Your task to perform on an android device: Go to settings Image 0: 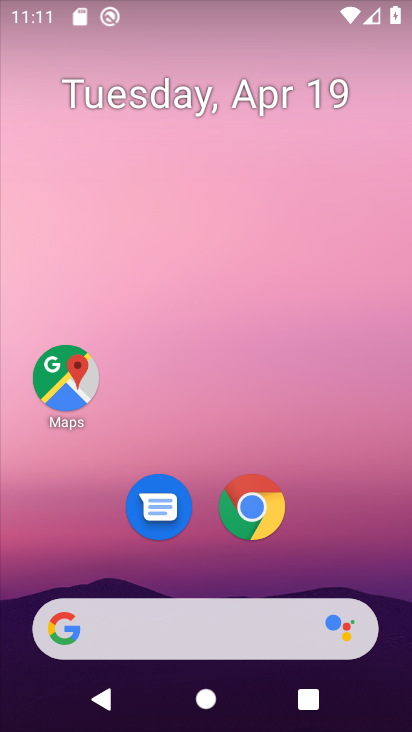
Step 0: drag from (381, 441) to (356, 117)
Your task to perform on an android device: Go to settings Image 1: 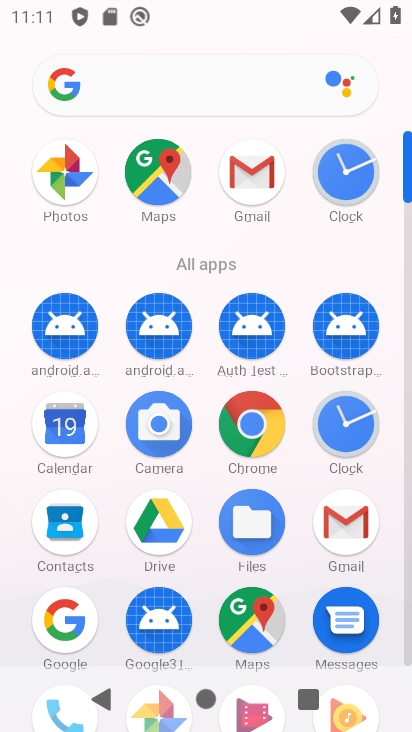
Step 1: click (287, 289)
Your task to perform on an android device: Go to settings Image 2: 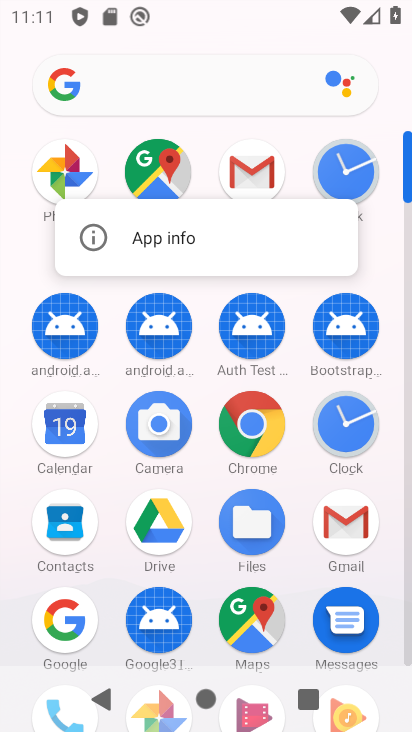
Step 2: drag from (380, 474) to (354, 253)
Your task to perform on an android device: Go to settings Image 3: 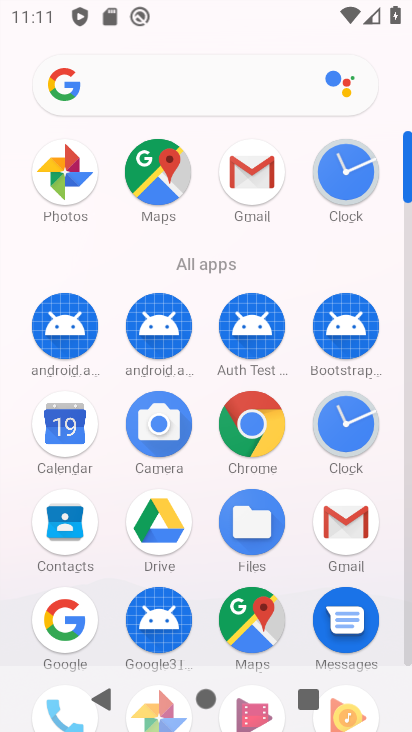
Step 3: drag from (386, 567) to (371, 253)
Your task to perform on an android device: Go to settings Image 4: 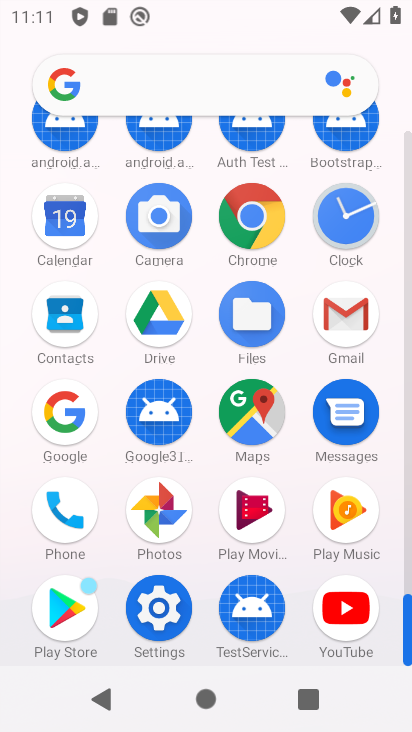
Step 4: click (178, 594)
Your task to perform on an android device: Go to settings Image 5: 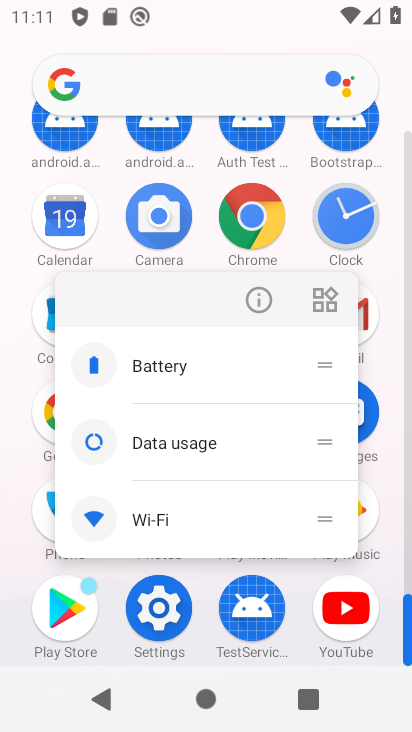
Step 5: click (178, 594)
Your task to perform on an android device: Go to settings Image 6: 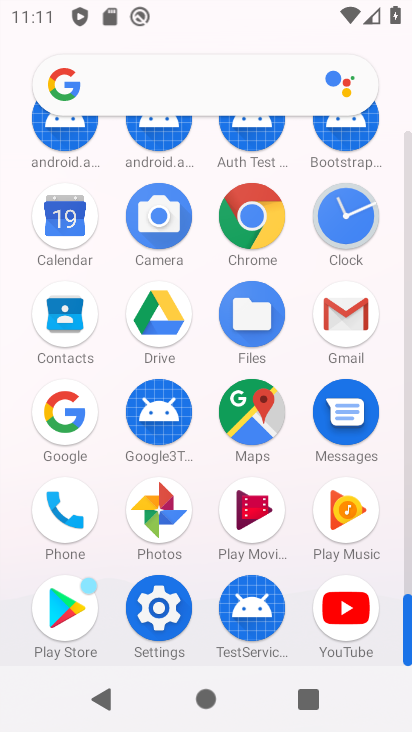
Step 6: click (173, 602)
Your task to perform on an android device: Go to settings Image 7: 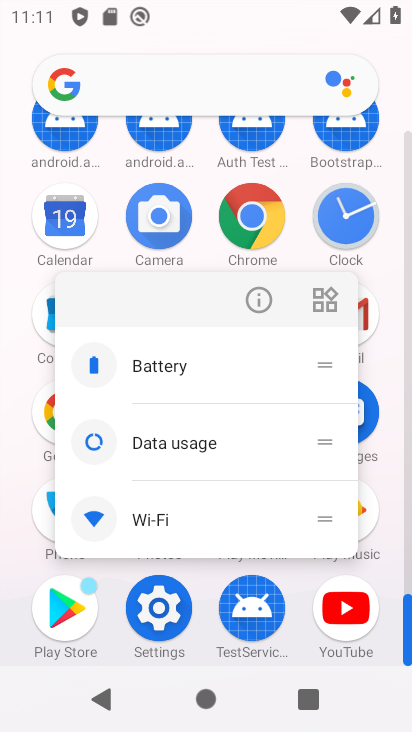
Step 7: click (172, 603)
Your task to perform on an android device: Go to settings Image 8: 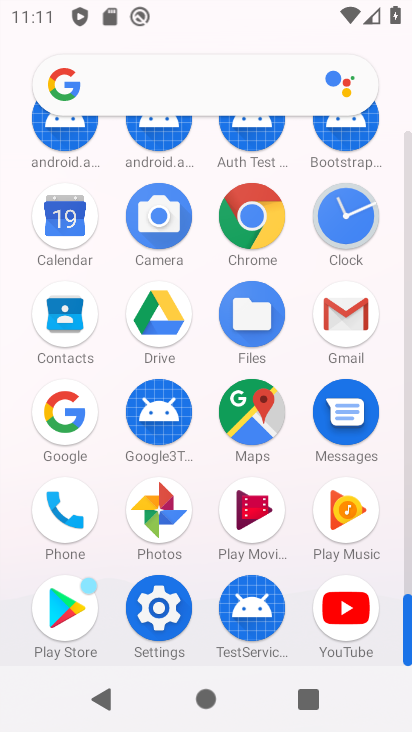
Step 8: click (162, 609)
Your task to perform on an android device: Go to settings Image 9: 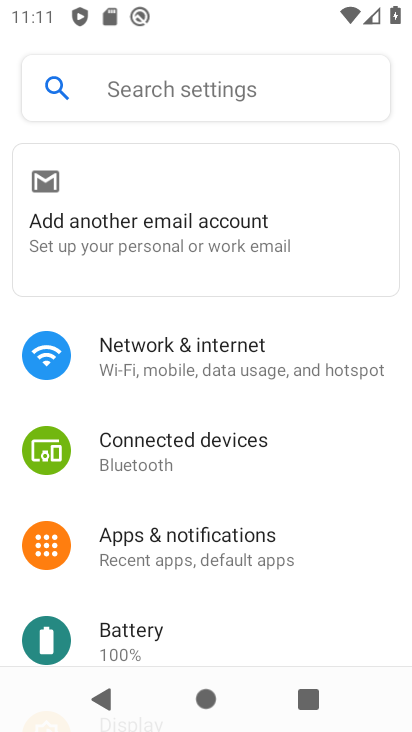
Step 9: task complete